Your task to perform on an android device: Open Google Maps and go to "Timeline" Image 0: 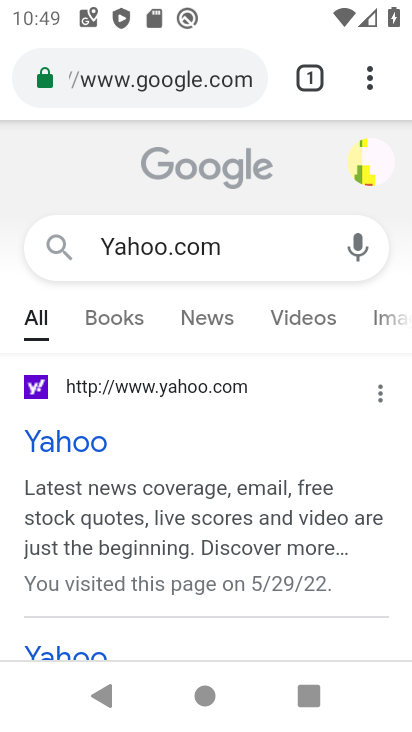
Step 0: press home button
Your task to perform on an android device: Open Google Maps and go to "Timeline" Image 1: 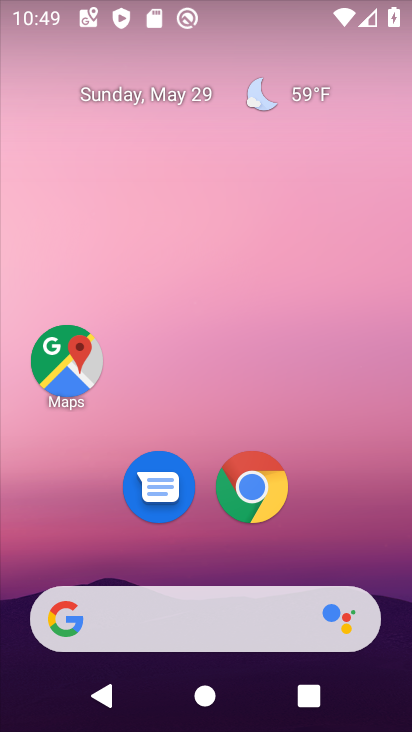
Step 1: click (81, 363)
Your task to perform on an android device: Open Google Maps and go to "Timeline" Image 2: 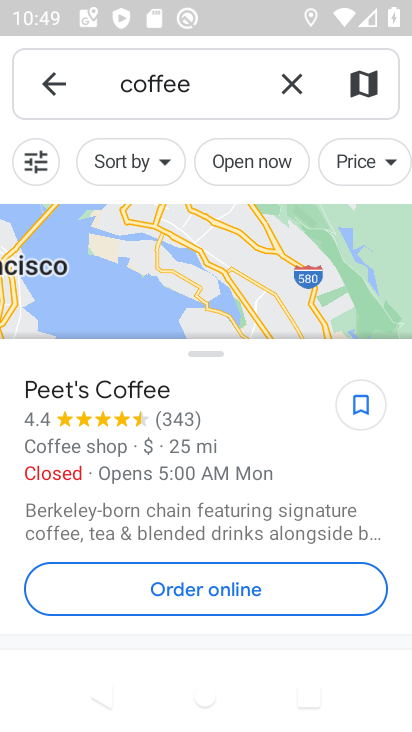
Step 2: click (53, 80)
Your task to perform on an android device: Open Google Maps and go to "Timeline" Image 3: 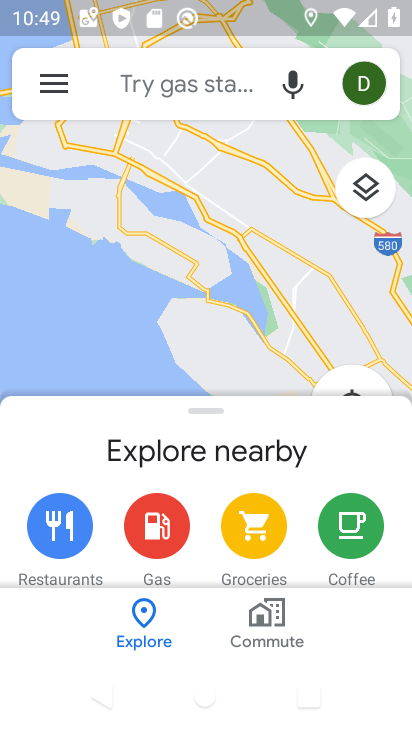
Step 3: click (53, 84)
Your task to perform on an android device: Open Google Maps and go to "Timeline" Image 4: 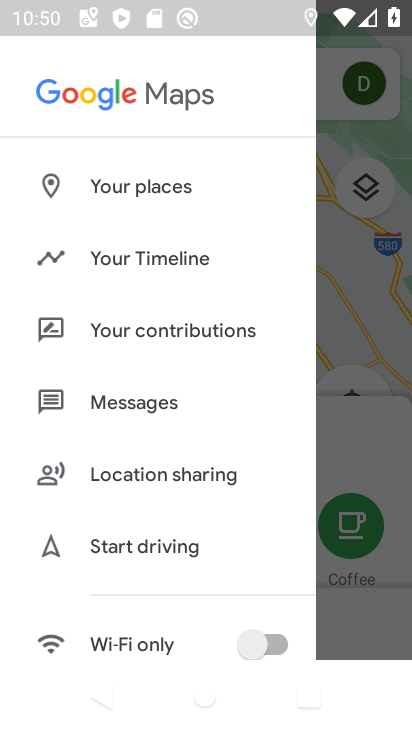
Step 4: click (138, 257)
Your task to perform on an android device: Open Google Maps and go to "Timeline" Image 5: 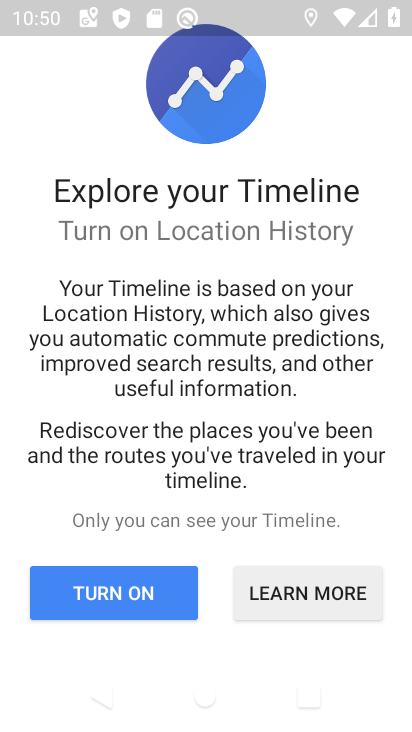
Step 5: click (122, 601)
Your task to perform on an android device: Open Google Maps and go to "Timeline" Image 6: 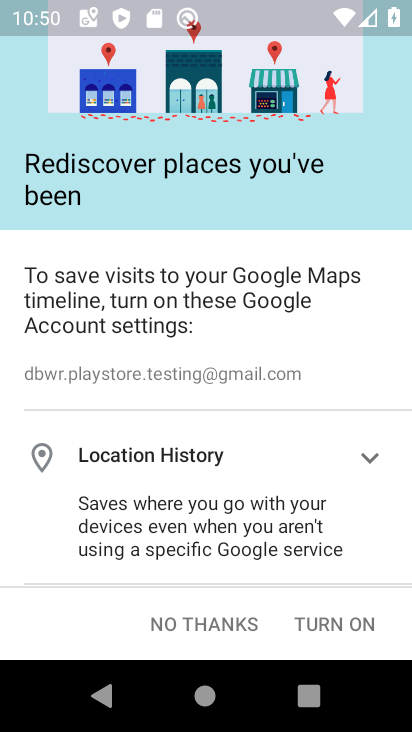
Step 6: click (328, 629)
Your task to perform on an android device: Open Google Maps and go to "Timeline" Image 7: 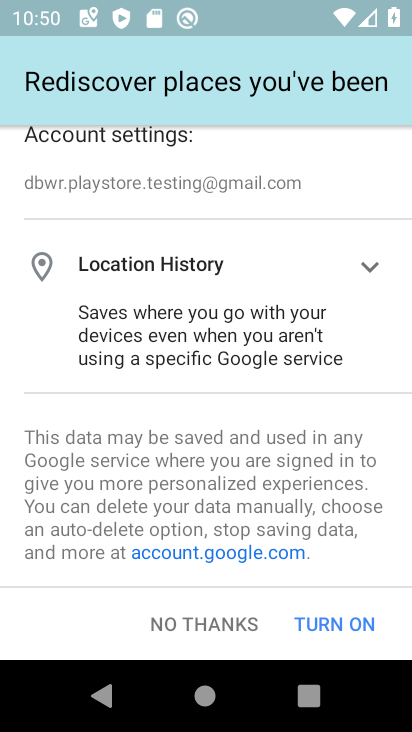
Step 7: task complete